Your task to perform on an android device: turn on translation in the chrome app Image 0: 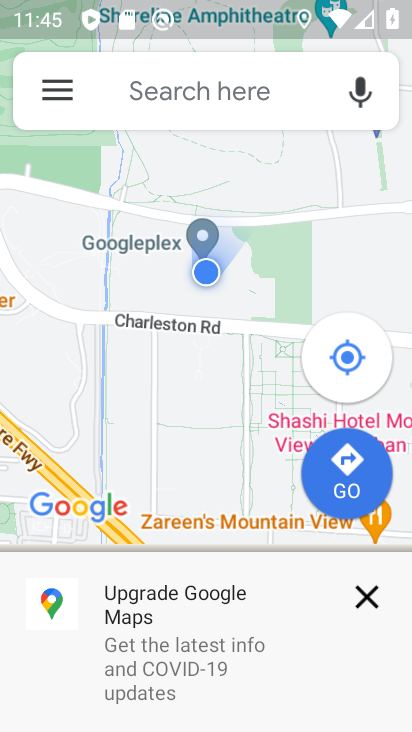
Step 0: press home button
Your task to perform on an android device: turn on translation in the chrome app Image 1: 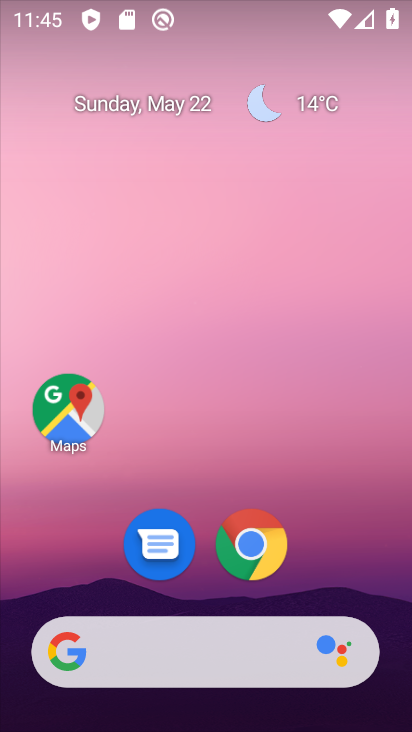
Step 1: click (257, 538)
Your task to perform on an android device: turn on translation in the chrome app Image 2: 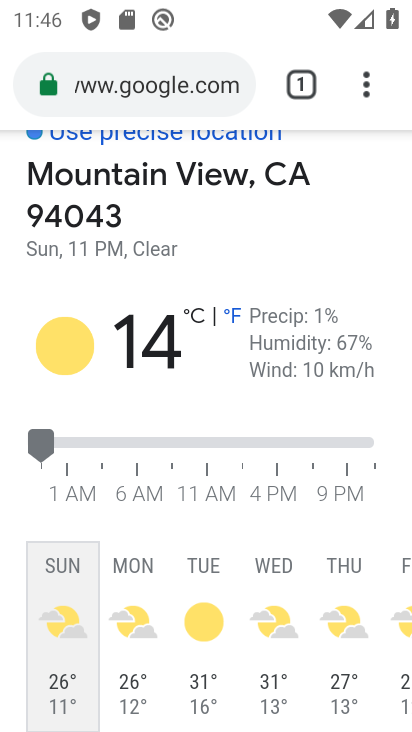
Step 2: click (369, 84)
Your task to perform on an android device: turn on translation in the chrome app Image 3: 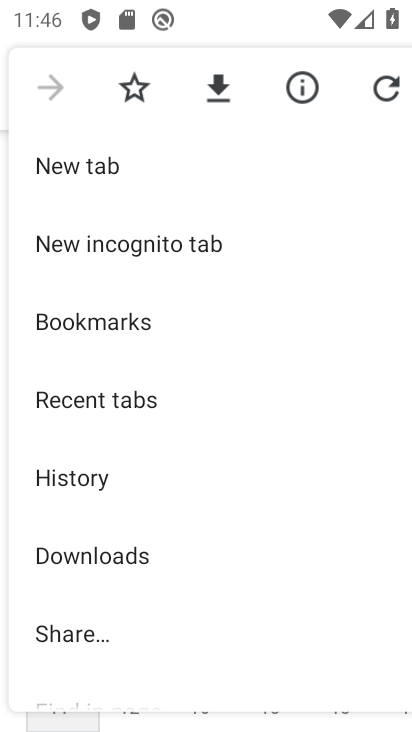
Step 3: drag from (184, 545) to (213, 29)
Your task to perform on an android device: turn on translation in the chrome app Image 4: 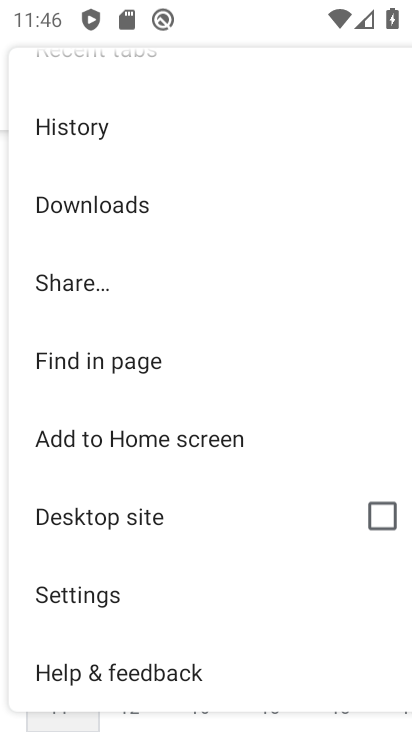
Step 4: click (101, 587)
Your task to perform on an android device: turn on translation in the chrome app Image 5: 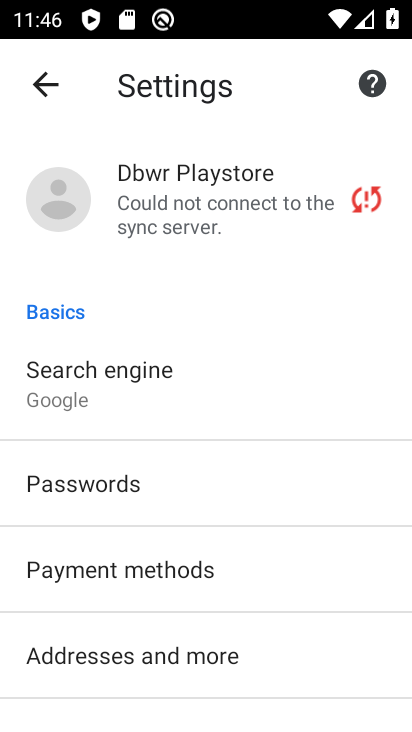
Step 5: drag from (206, 611) to (219, 113)
Your task to perform on an android device: turn on translation in the chrome app Image 6: 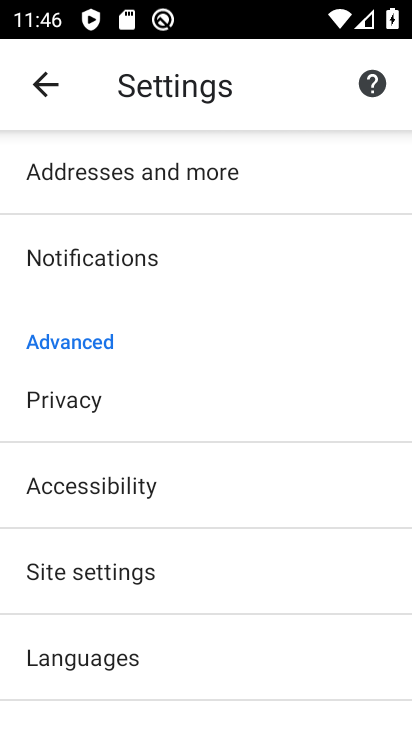
Step 6: drag from (116, 579) to (130, 284)
Your task to perform on an android device: turn on translation in the chrome app Image 7: 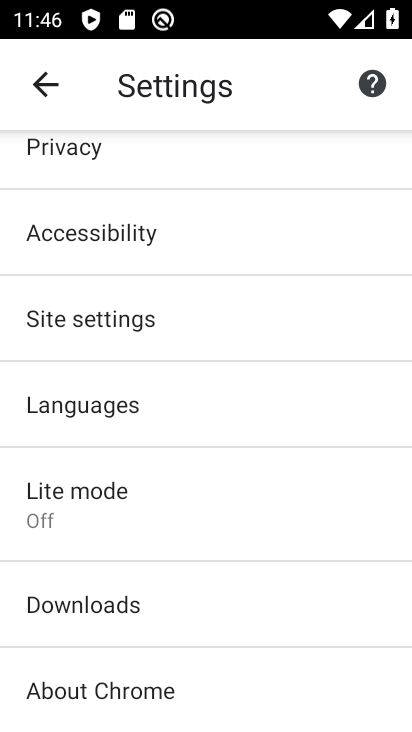
Step 7: click (106, 390)
Your task to perform on an android device: turn on translation in the chrome app Image 8: 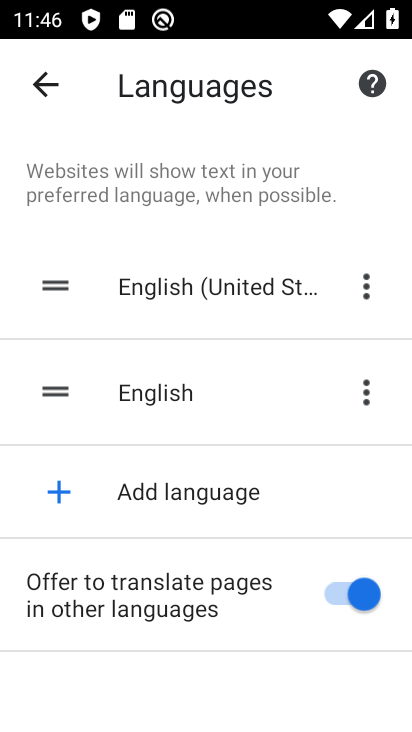
Step 8: task complete